Your task to perform on an android device: Open the stopwatch Image 0: 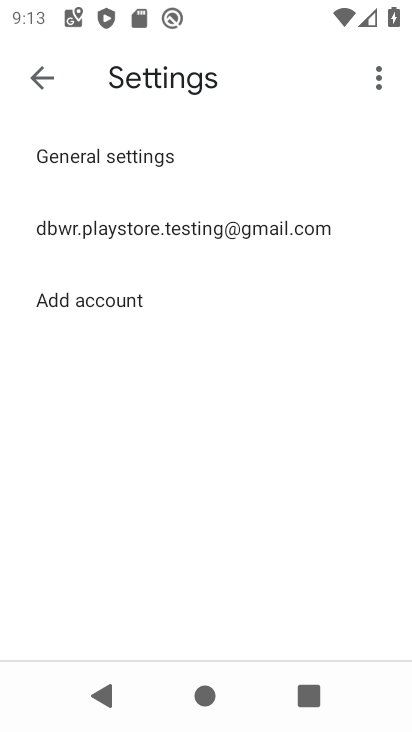
Step 0: press home button
Your task to perform on an android device: Open the stopwatch Image 1: 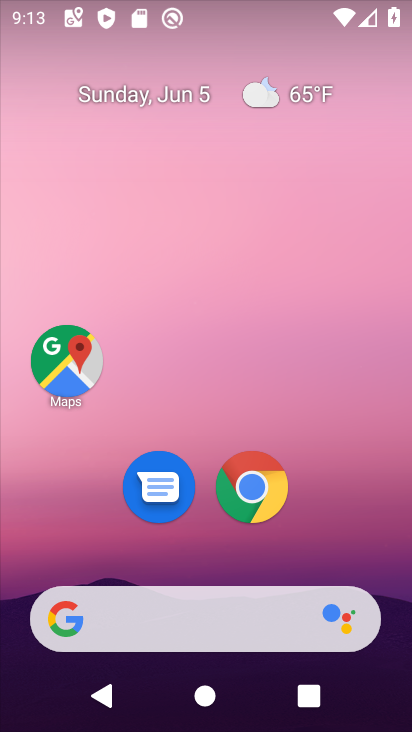
Step 1: drag from (185, 554) to (256, 30)
Your task to perform on an android device: Open the stopwatch Image 2: 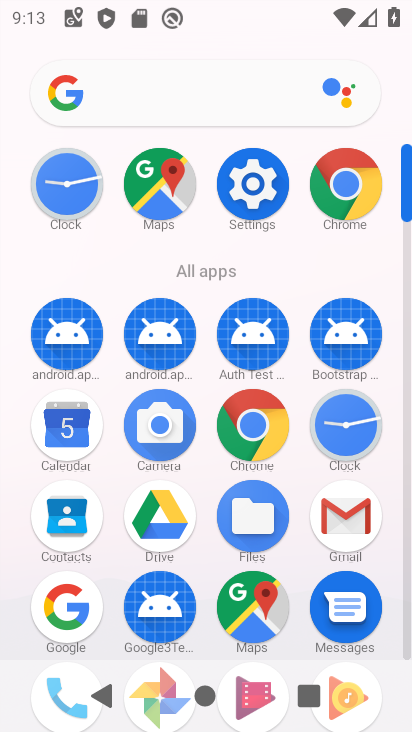
Step 2: click (391, 431)
Your task to perform on an android device: Open the stopwatch Image 3: 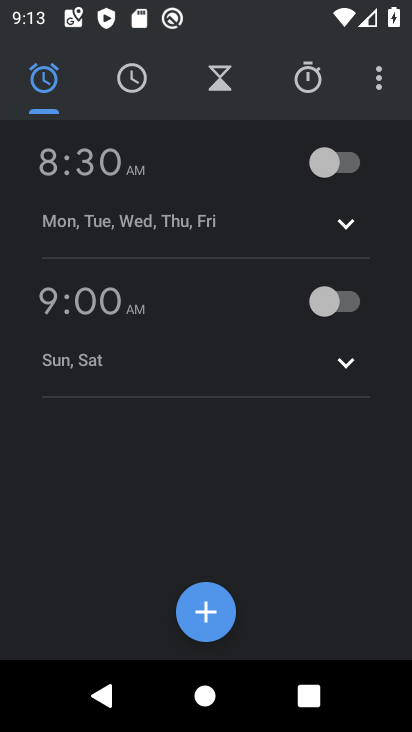
Step 3: click (299, 81)
Your task to perform on an android device: Open the stopwatch Image 4: 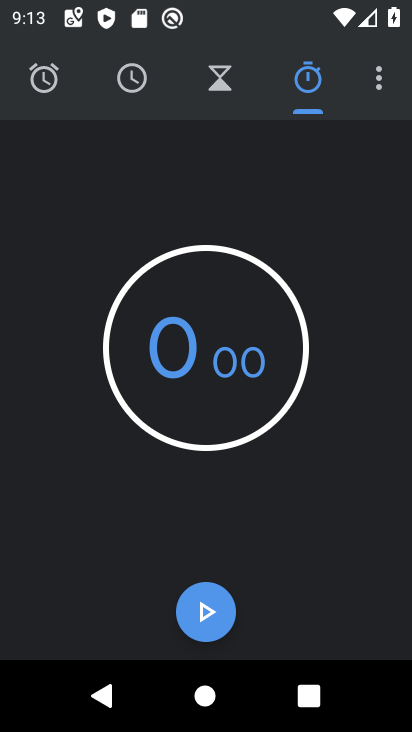
Step 4: task complete